Your task to perform on an android device: choose inbox layout in the gmail app Image 0: 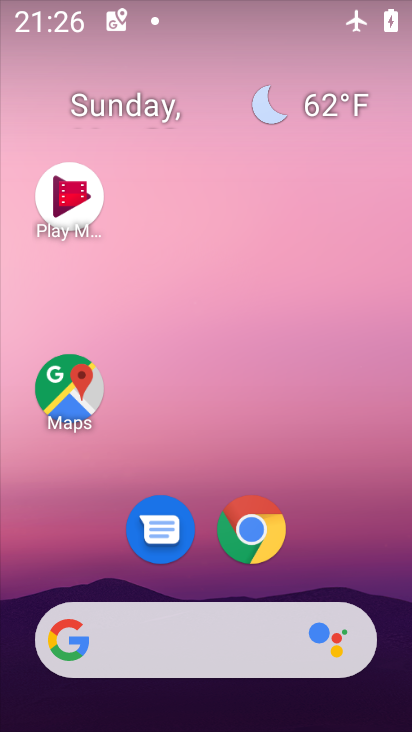
Step 0: drag from (235, 574) to (221, 1)
Your task to perform on an android device: choose inbox layout in the gmail app Image 1: 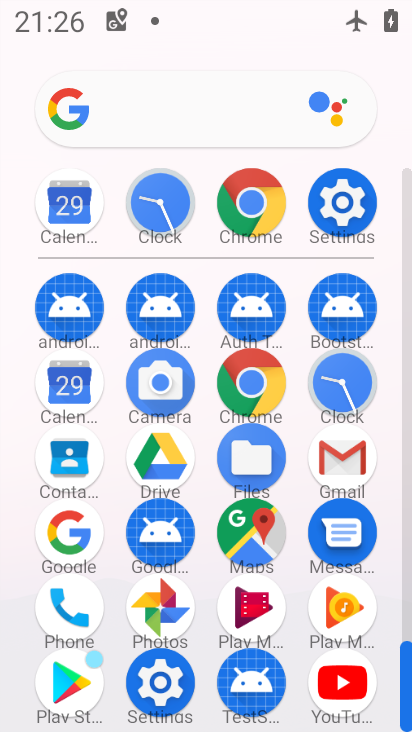
Step 1: click (340, 442)
Your task to perform on an android device: choose inbox layout in the gmail app Image 2: 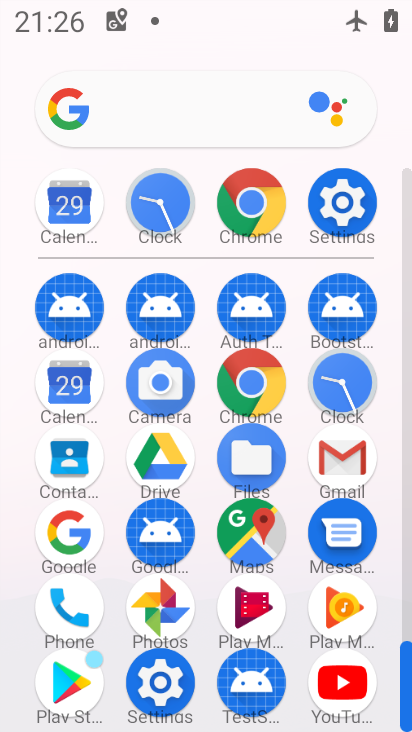
Step 2: click (340, 442)
Your task to perform on an android device: choose inbox layout in the gmail app Image 3: 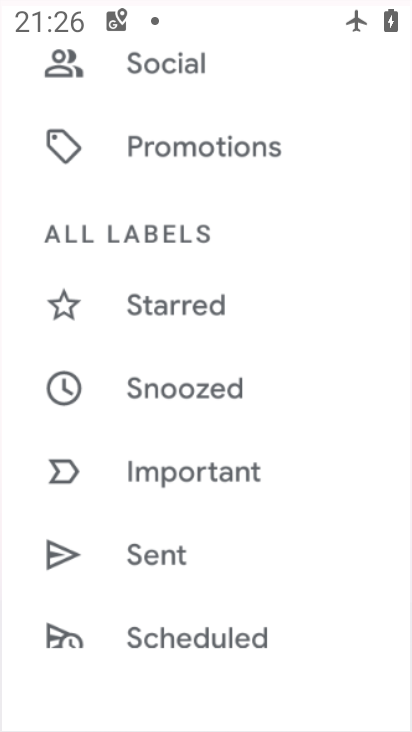
Step 3: click (339, 443)
Your task to perform on an android device: choose inbox layout in the gmail app Image 4: 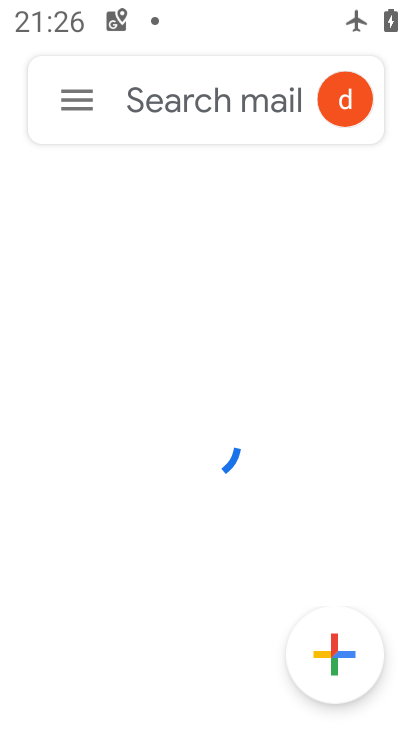
Step 4: click (60, 104)
Your task to perform on an android device: choose inbox layout in the gmail app Image 5: 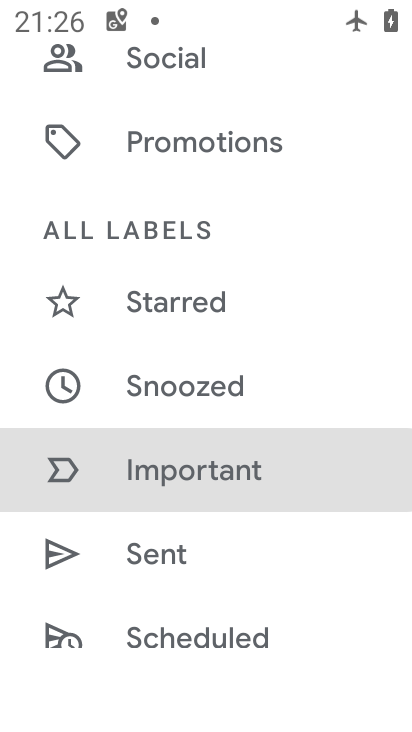
Step 5: drag from (214, 549) to (210, 145)
Your task to perform on an android device: choose inbox layout in the gmail app Image 6: 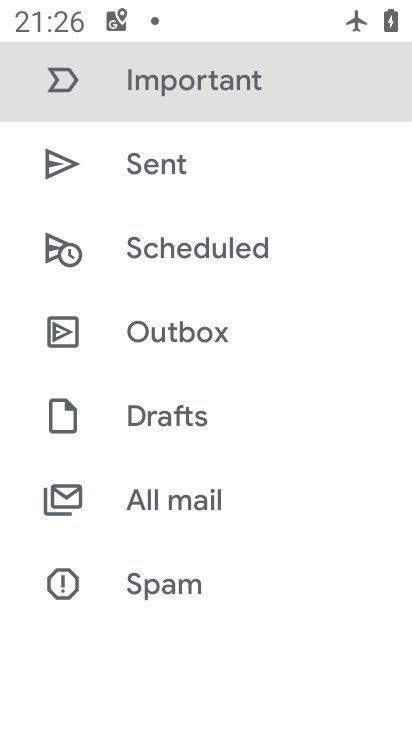
Step 6: drag from (170, 468) to (170, 118)
Your task to perform on an android device: choose inbox layout in the gmail app Image 7: 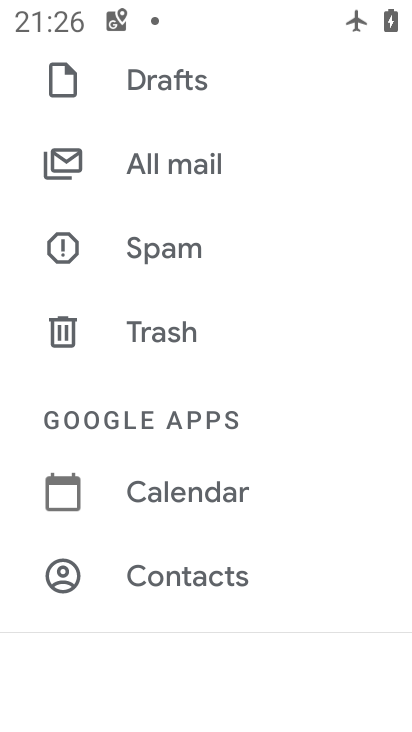
Step 7: drag from (182, 422) to (182, 191)
Your task to perform on an android device: choose inbox layout in the gmail app Image 8: 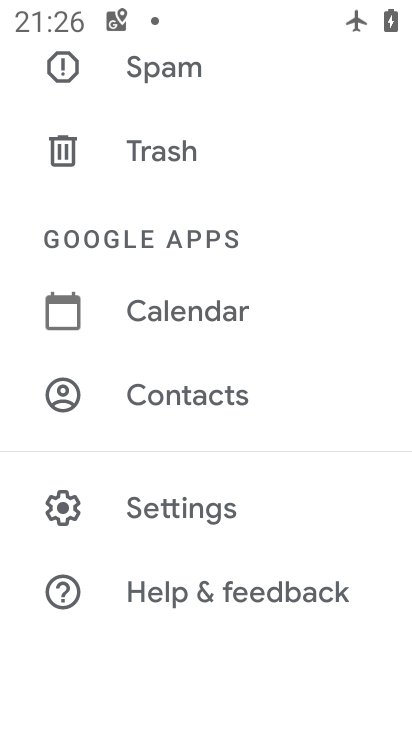
Step 8: drag from (159, 171) to (202, 459)
Your task to perform on an android device: choose inbox layout in the gmail app Image 9: 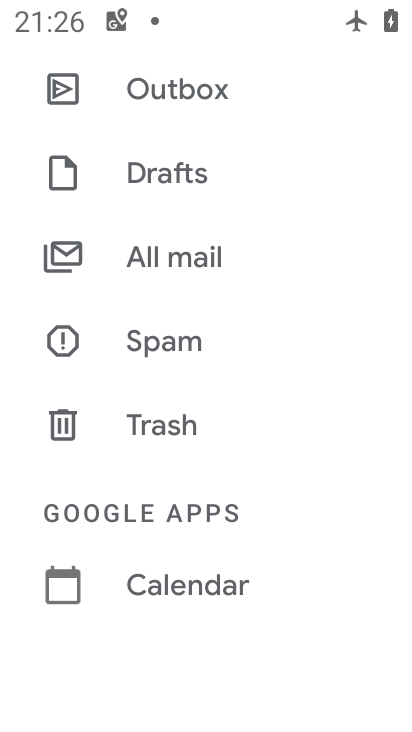
Step 9: drag from (196, 533) to (196, 142)
Your task to perform on an android device: choose inbox layout in the gmail app Image 10: 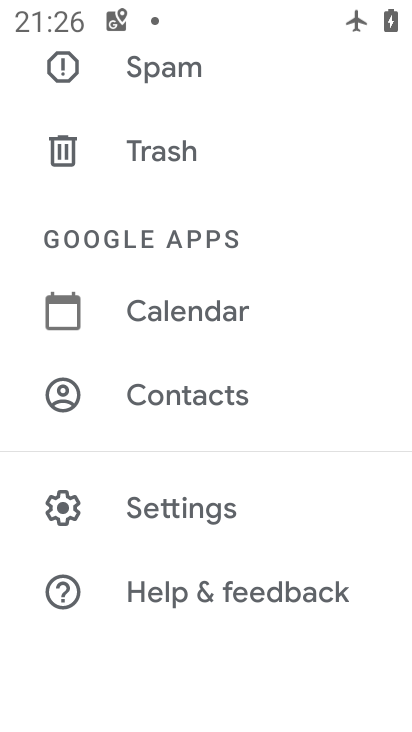
Step 10: drag from (203, 392) to (248, 62)
Your task to perform on an android device: choose inbox layout in the gmail app Image 11: 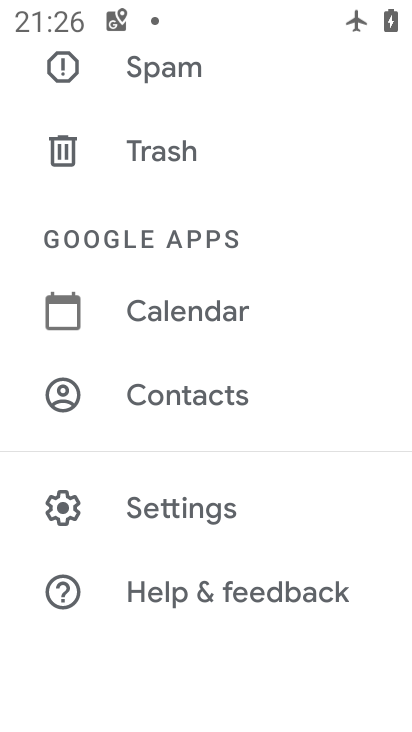
Step 11: click (164, 504)
Your task to perform on an android device: choose inbox layout in the gmail app Image 12: 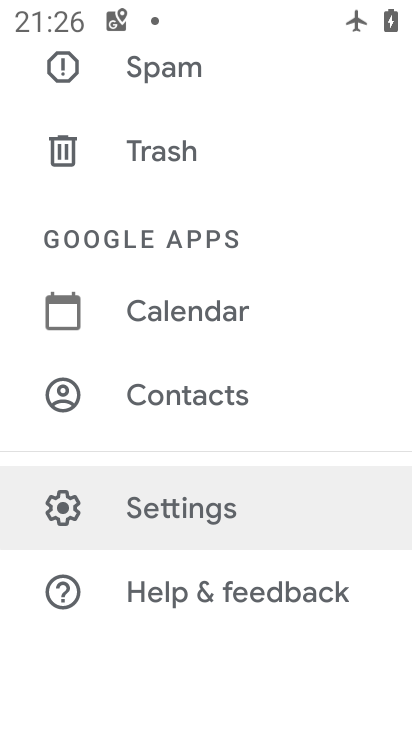
Step 12: click (165, 503)
Your task to perform on an android device: choose inbox layout in the gmail app Image 13: 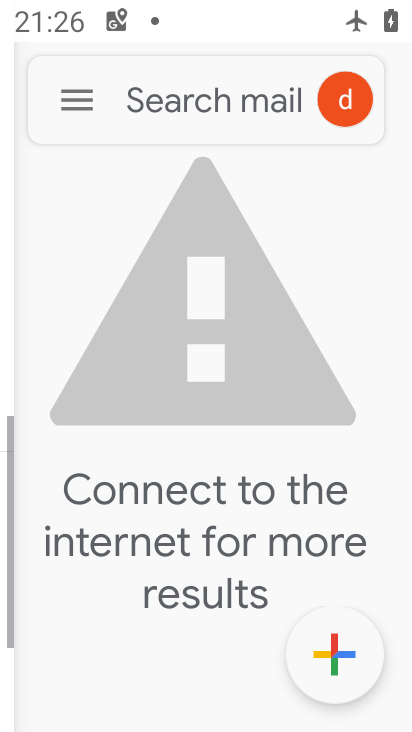
Step 13: click (165, 496)
Your task to perform on an android device: choose inbox layout in the gmail app Image 14: 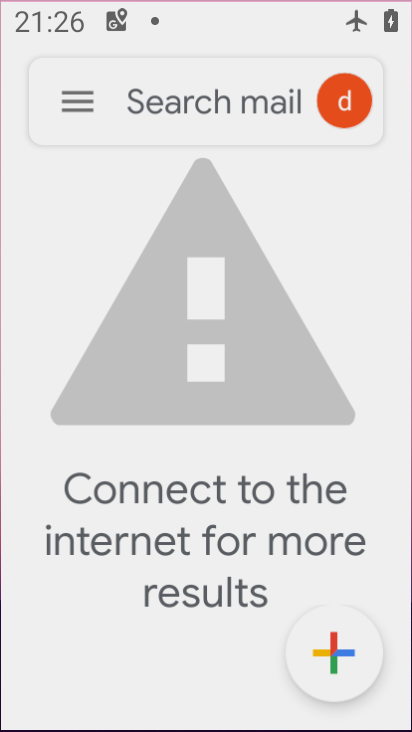
Step 14: click (176, 477)
Your task to perform on an android device: choose inbox layout in the gmail app Image 15: 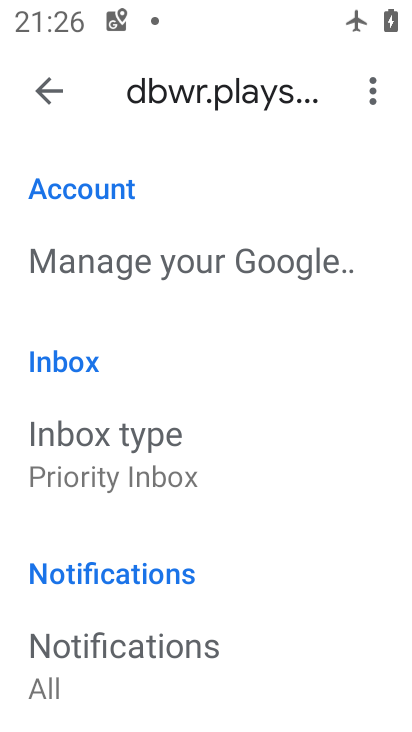
Step 15: click (96, 457)
Your task to perform on an android device: choose inbox layout in the gmail app Image 16: 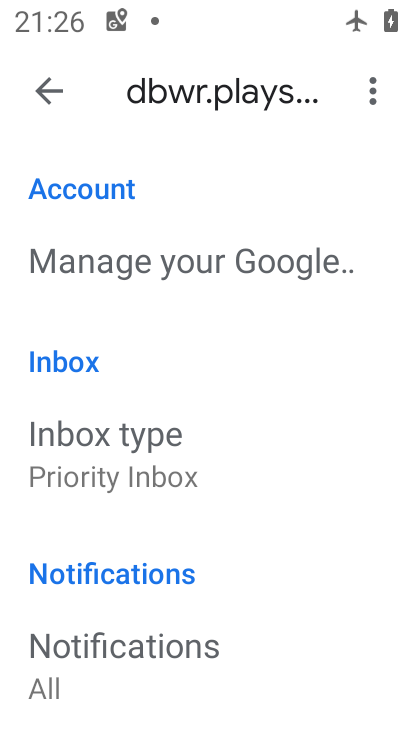
Step 16: click (96, 457)
Your task to perform on an android device: choose inbox layout in the gmail app Image 17: 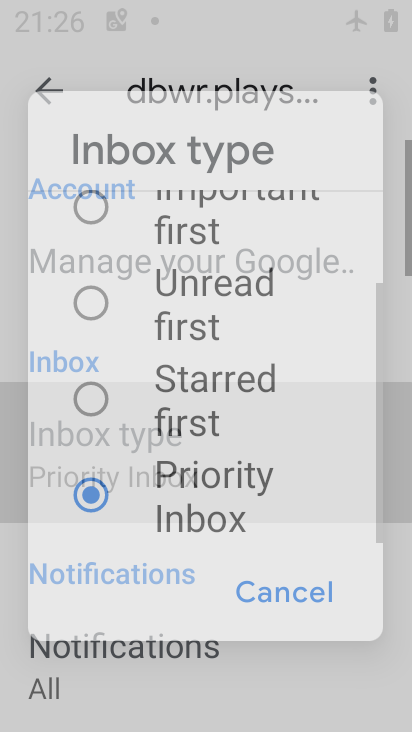
Step 17: click (96, 457)
Your task to perform on an android device: choose inbox layout in the gmail app Image 18: 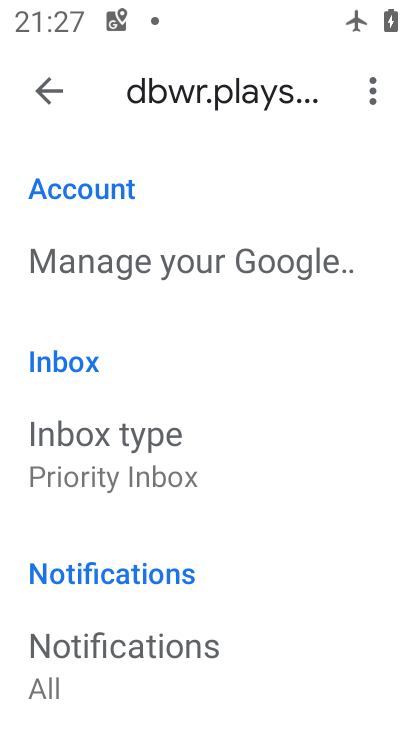
Step 18: task complete